Your task to perform on an android device: change the clock display to show seconds Image 0: 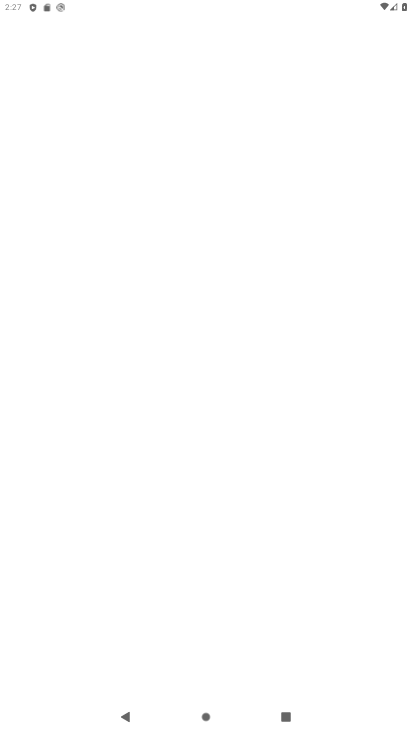
Step 0: press home button
Your task to perform on an android device: change the clock display to show seconds Image 1: 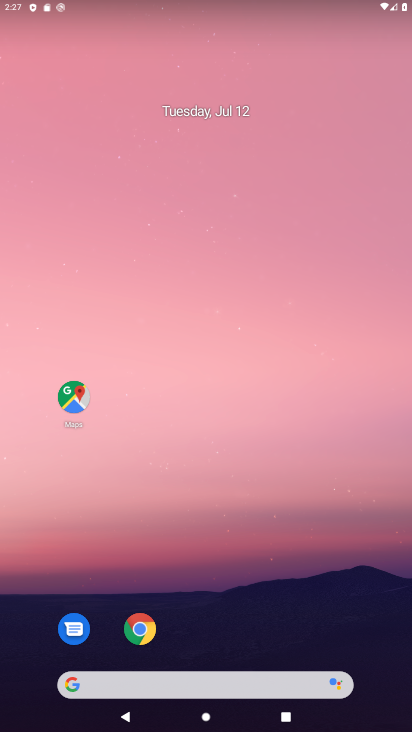
Step 1: drag from (173, 644) to (170, 159)
Your task to perform on an android device: change the clock display to show seconds Image 2: 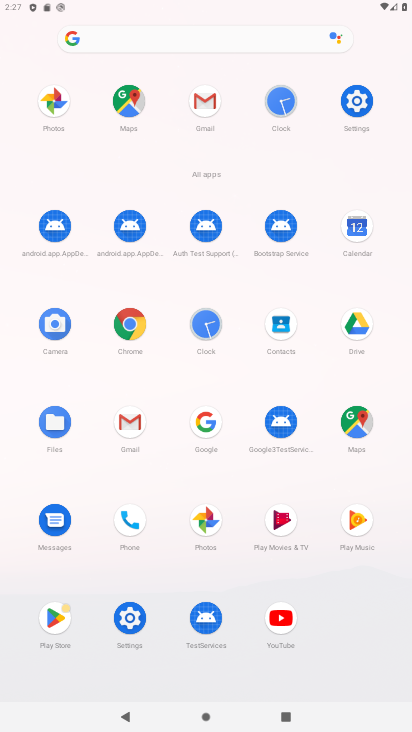
Step 2: click (208, 325)
Your task to perform on an android device: change the clock display to show seconds Image 3: 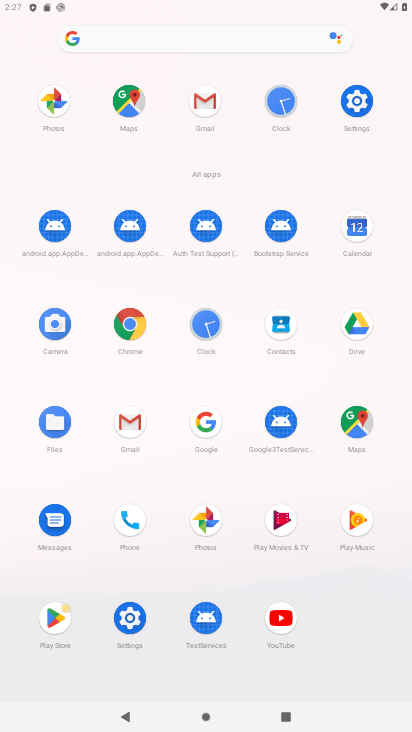
Step 3: click (207, 325)
Your task to perform on an android device: change the clock display to show seconds Image 4: 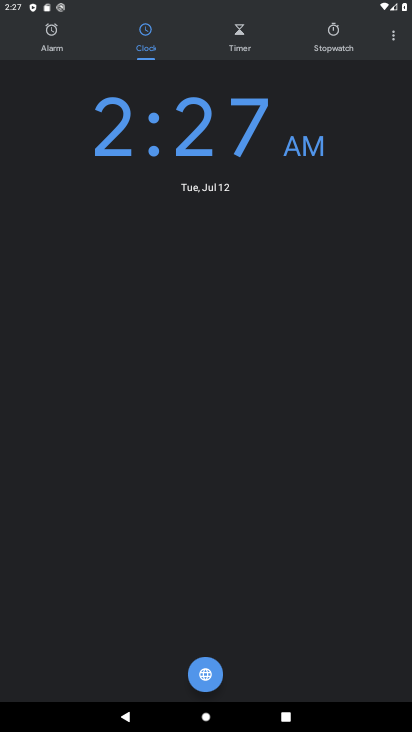
Step 4: click (388, 35)
Your task to perform on an android device: change the clock display to show seconds Image 5: 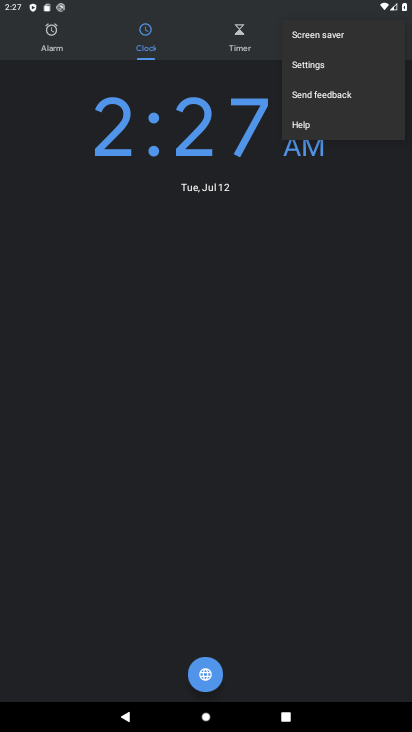
Step 5: click (305, 67)
Your task to perform on an android device: change the clock display to show seconds Image 6: 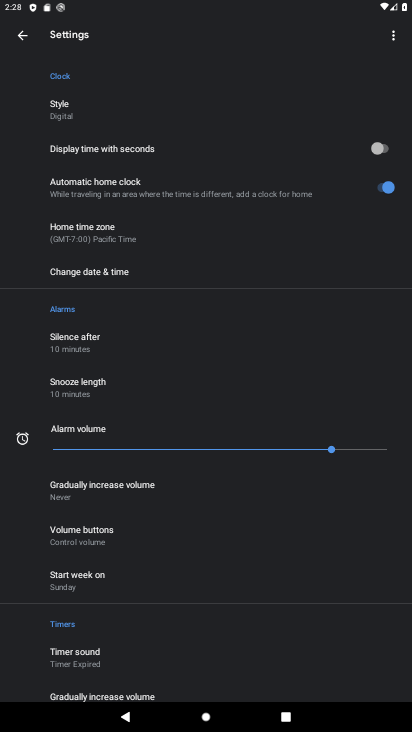
Step 6: click (381, 146)
Your task to perform on an android device: change the clock display to show seconds Image 7: 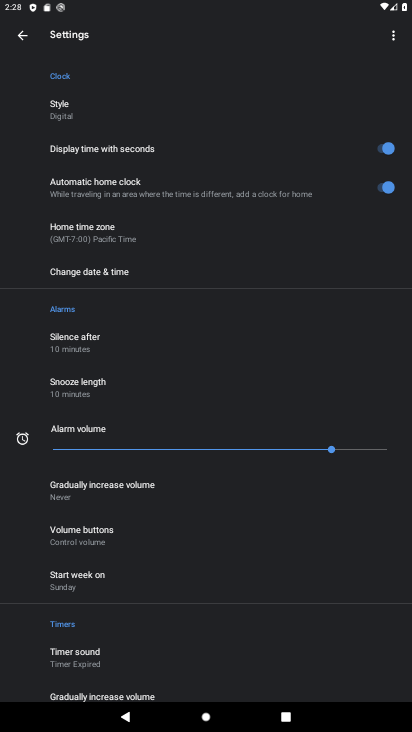
Step 7: task complete